Your task to perform on an android device: turn on javascript in the chrome app Image 0: 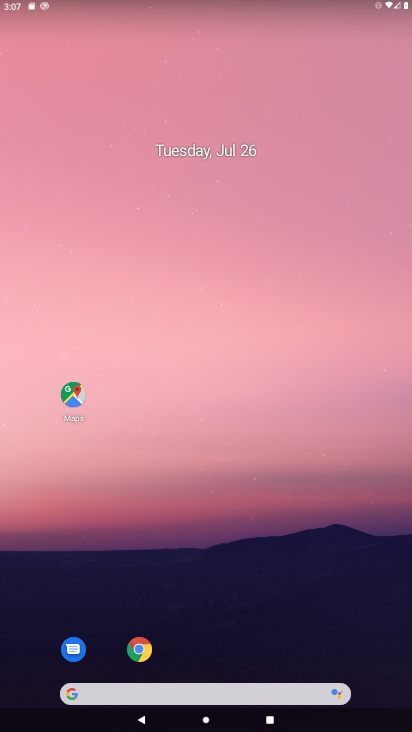
Step 0: click (141, 660)
Your task to perform on an android device: turn on javascript in the chrome app Image 1: 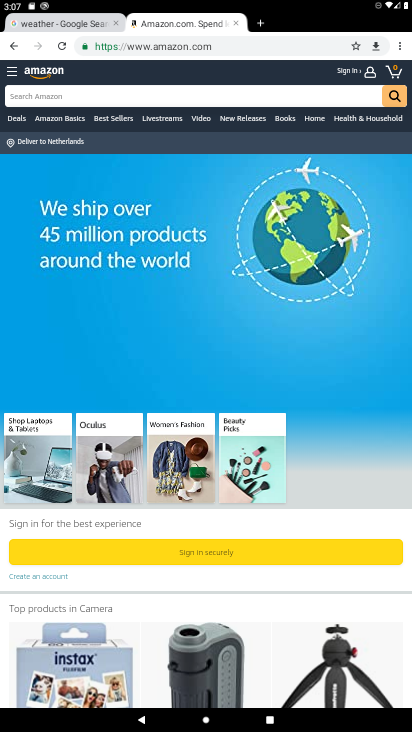
Step 1: drag from (403, 46) to (329, 333)
Your task to perform on an android device: turn on javascript in the chrome app Image 2: 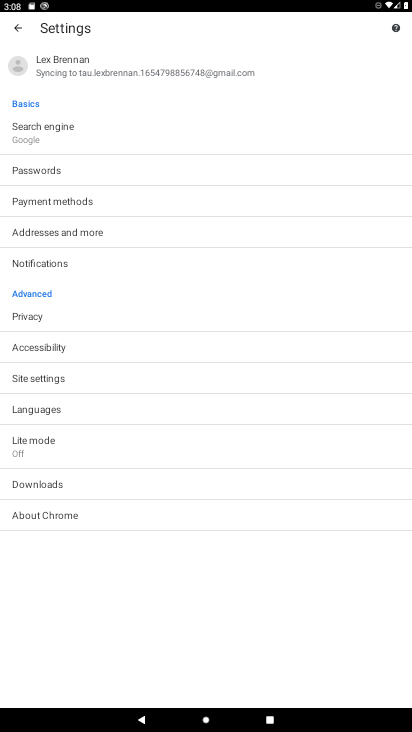
Step 2: click (73, 377)
Your task to perform on an android device: turn on javascript in the chrome app Image 3: 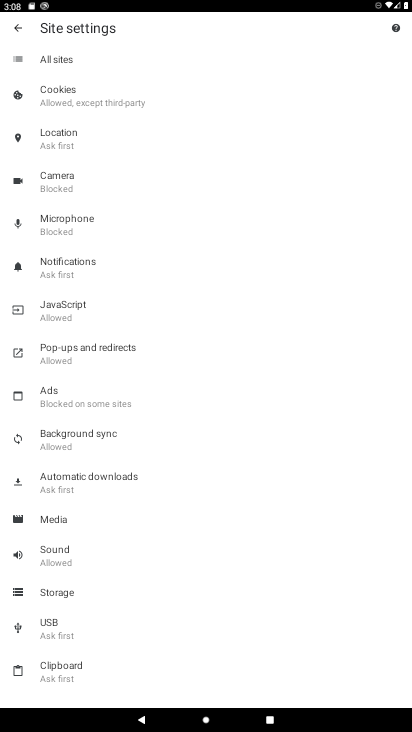
Step 3: click (87, 306)
Your task to perform on an android device: turn on javascript in the chrome app Image 4: 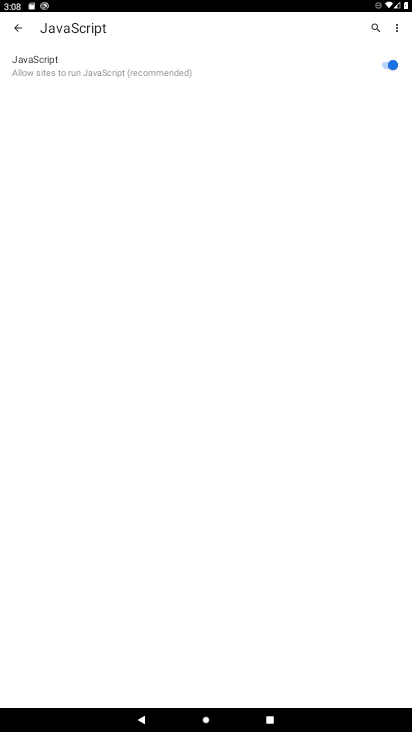
Step 4: task complete